Your task to perform on an android device: change notification settings in the gmail app Image 0: 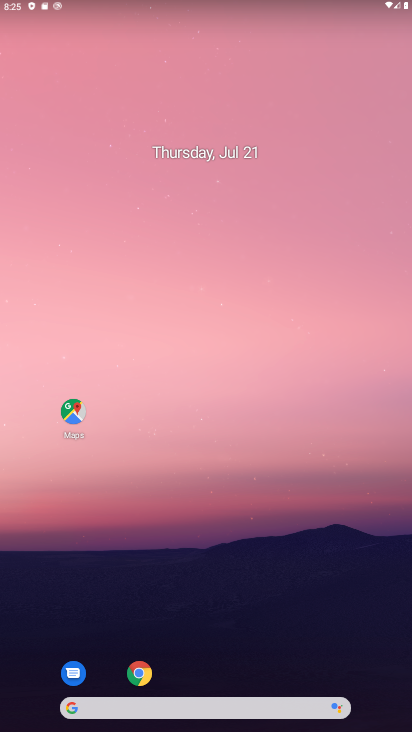
Step 0: drag from (235, 723) to (232, 188)
Your task to perform on an android device: change notification settings in the gmail app Image 1: 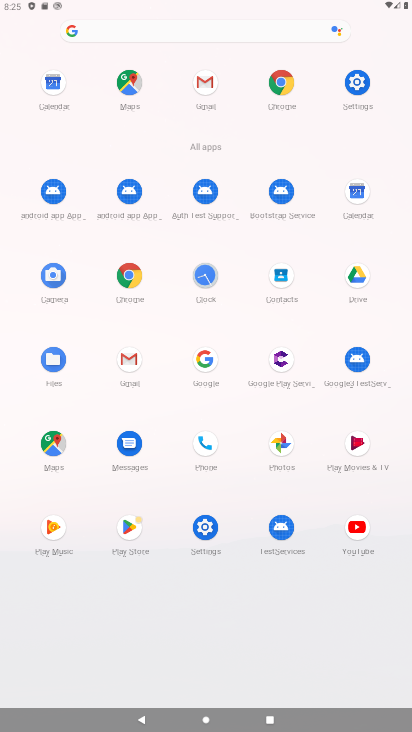
Step 1: click (127, 365)
Your task to perform on an android device: change notification settings in the gmail app Image 2: 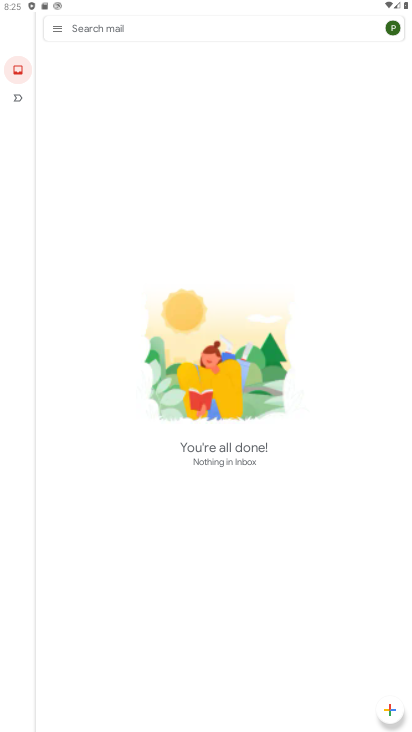
Step 2: click (62, 28)
Your task to perform on an android device: change notification settings in the gmail app Image 3: 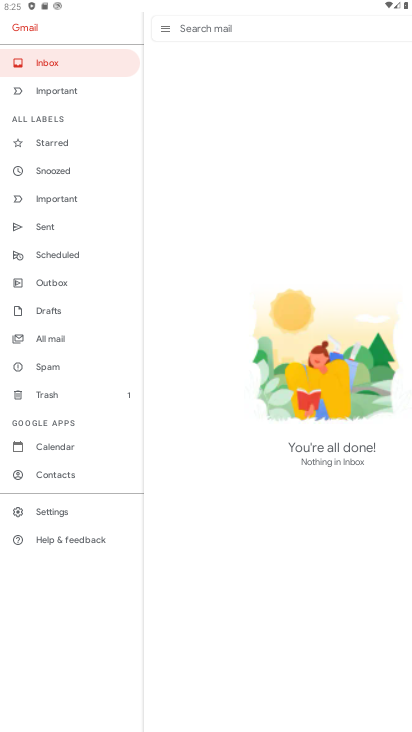
Step 3: click (54, 515)
Your task to perform on an android device: change notification settings in the gmail app Image 4: 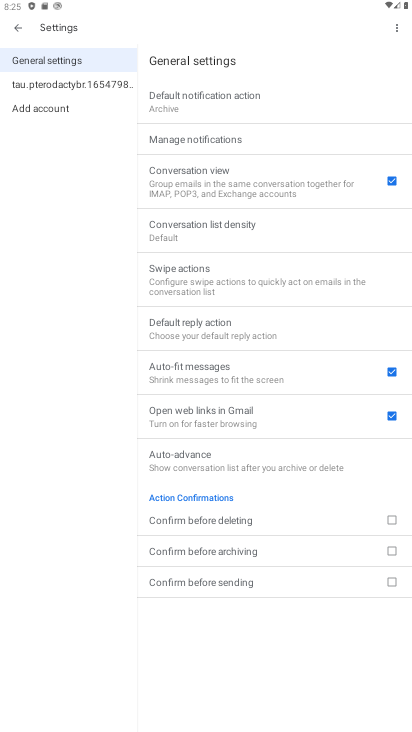
Step 4: click (85, 80)
Your task to perform on an android device: change notification settings in the gmail app Image 5: 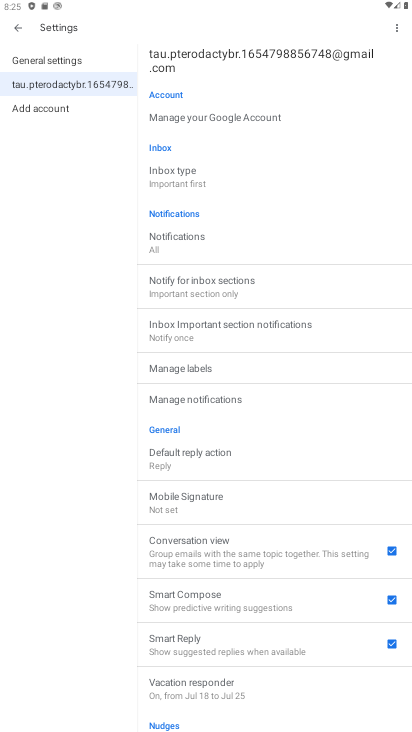
Step 5: click (184, 240)
Your task to perform on an android device: change notification settings in the gmail app Image 6: 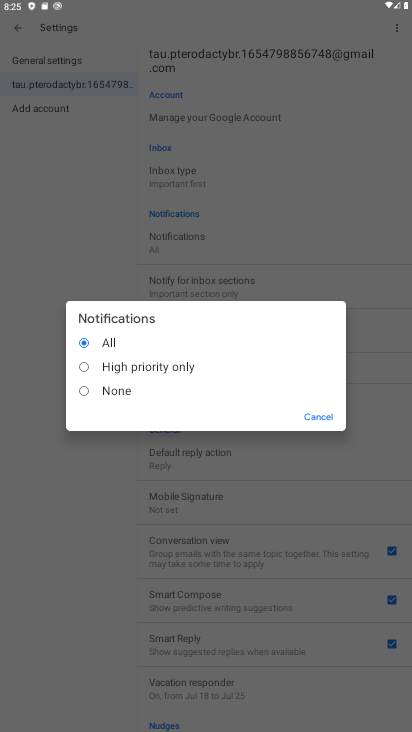
Step 6: click (82, 365)
Your task to perform on an android device: change notification settings in the gmail app Image 7: 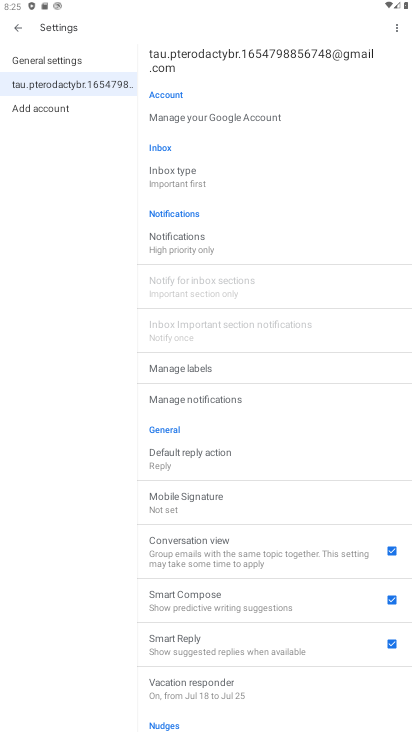
Step 7: task complete